Your task to perform on an android device: open the mobile data screen to see how much data has been used Image 0: 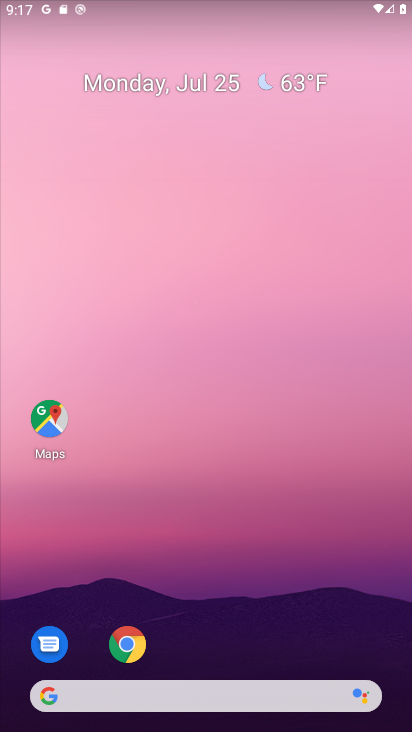
Step 0: click (12, 73)
Your task to perform on an android device: open the mobile data screen to see how much data has been used Image 1: 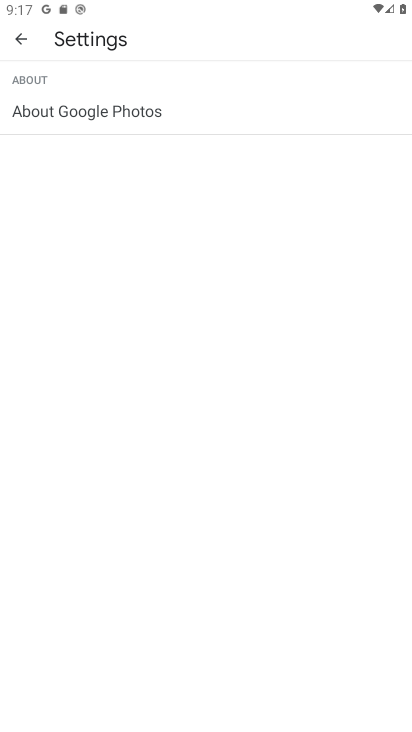
Step 1: click (23, 43)
Your task to perform on an android device: open the mobile data screen to see how much data has been used Image 2: 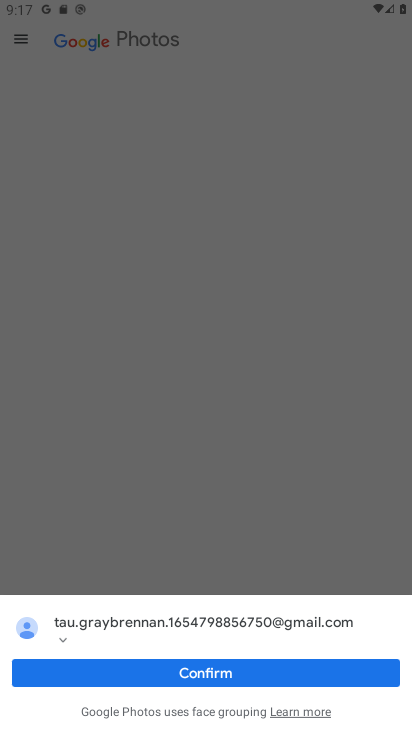
Step 2: press back button
Your task to perform on an android device: open the mobile data screen to see how much data has been used Image 3: 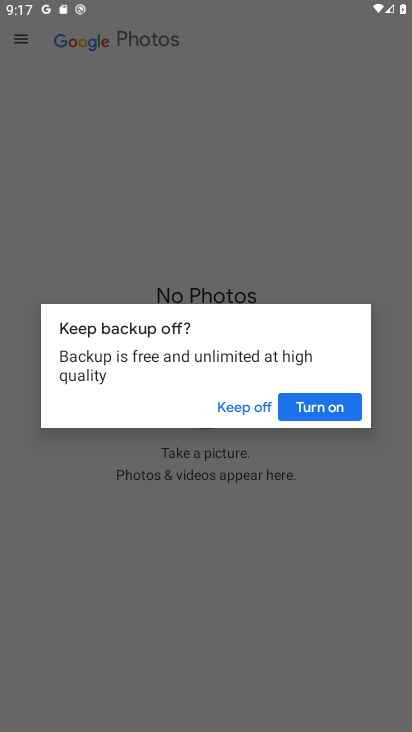
Step 3: press home button
Your task to perform on an android device: open the mobile data screen to see how much data has been used Image 4: 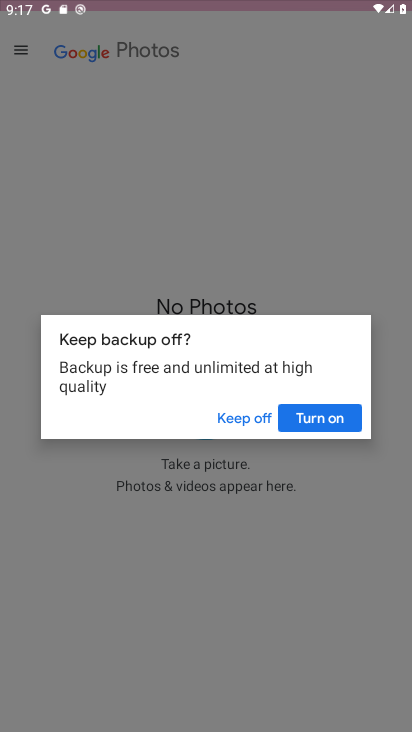
Step 4: press home button
Your task to perform on an android device: open the mobile data screen to see how much data has been used Image 5: 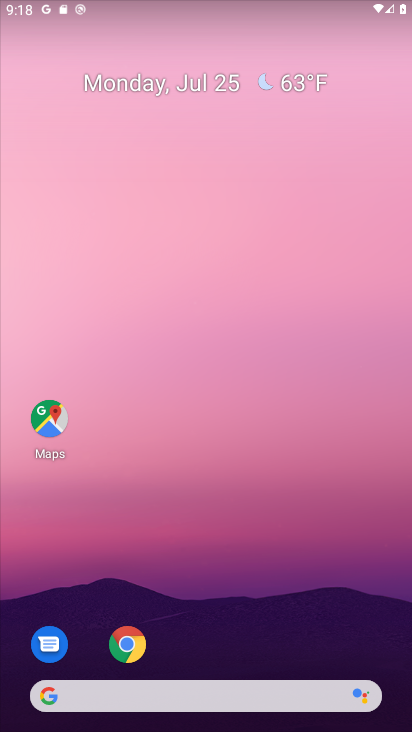
Step 5: click (236, 448)
Your task to perform on an android device: open the mobile data screen to see how much data has been used Image 6: 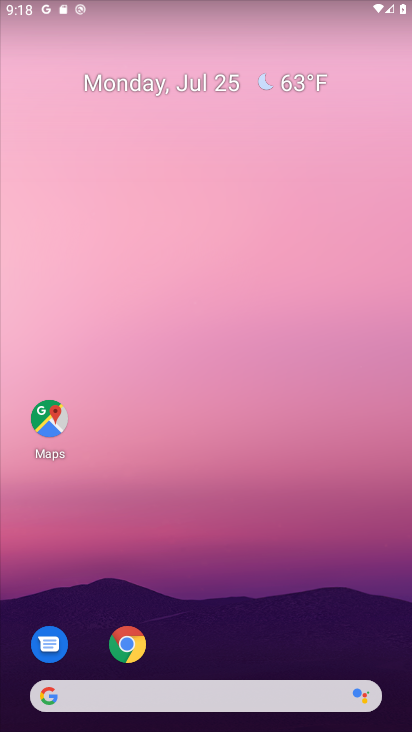
Step 6: drag from (238, 580) to (203, 88)
Your task to perform on an android device: open the mobile data screen to see how much data has been used Image 7: 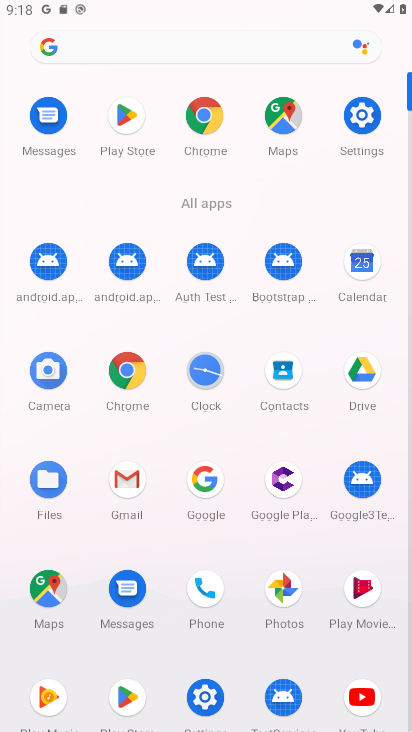
Step 7: click (360, 122)
Your task to perform on an android device: open the mobile data screen to see how much data has been used Image 8: 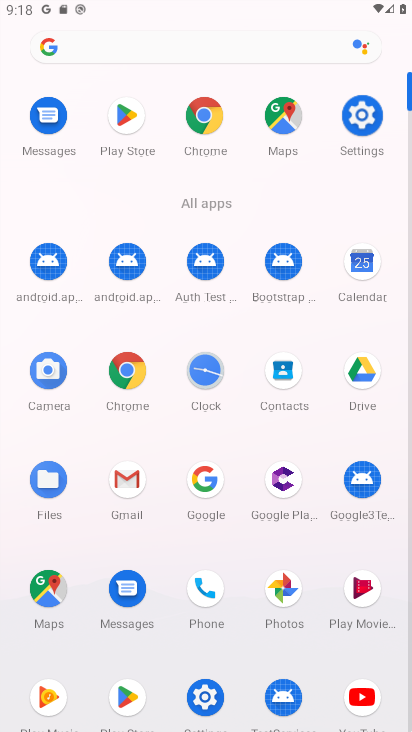
Step 8: click (365, 124)
Your task to perform on an android device: open the mobile data screen to see how much data has been used Image 9: 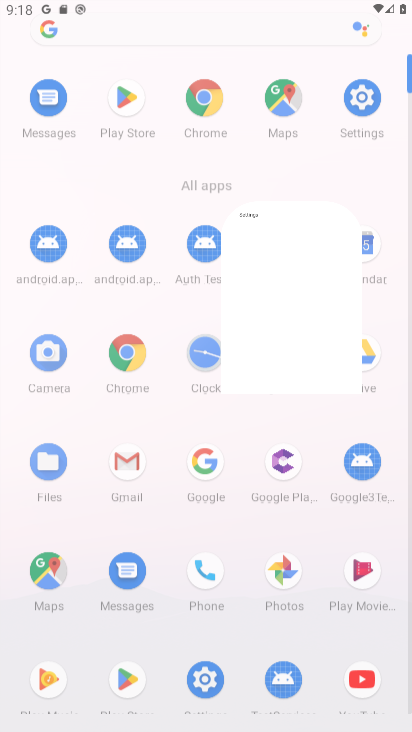
Step 9: click (371, 127)
Your task to perform on an android device: open the mobile data screen to see how much data has been used Image 10: 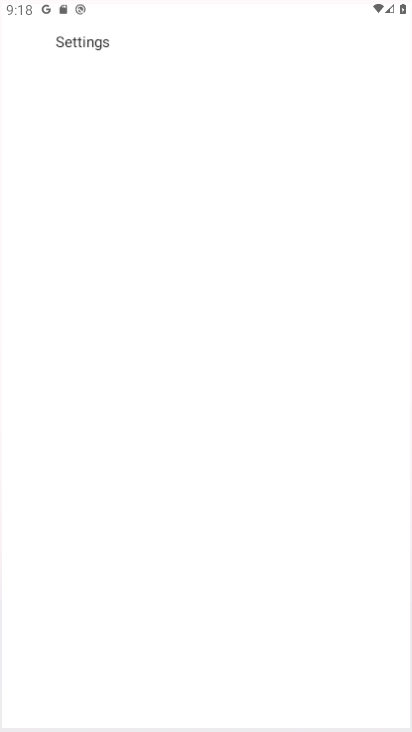
Step 10: click (372, 125)
Your task to perform on an android device: open the mobile data screen to see how much data has been used Image 11: 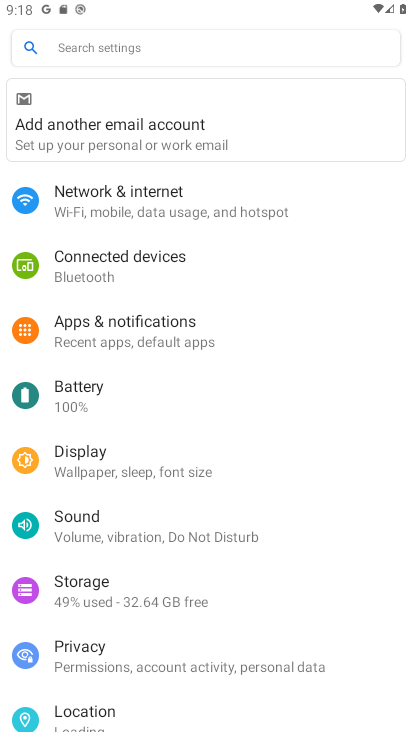
Step 11: click (106, 189)
Your task to perform on an android device: open the mobile data screen to see how much data has been used Image 12: 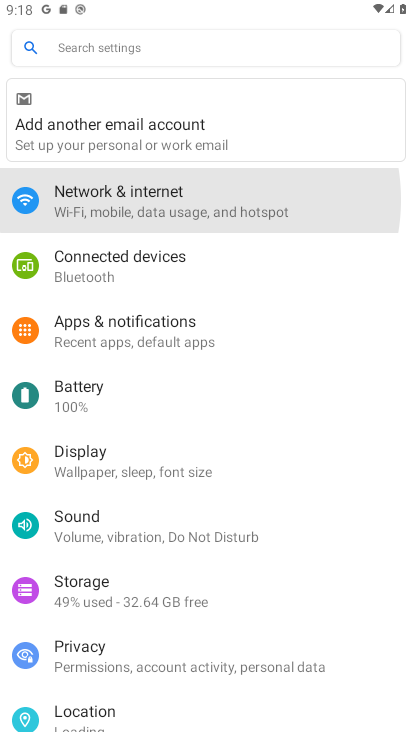
Step 12: click (107, 192)
Your task to perform on an android device: open the mobile data screen to see how much data has been used Image 13: 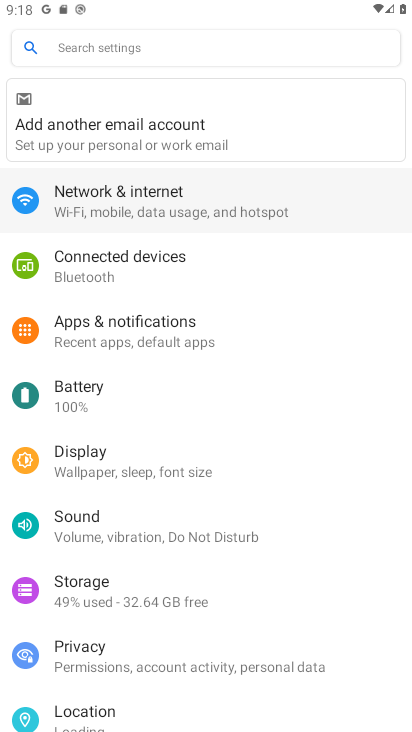
Step 13: click (107, 192)
Your task to perform on an android device: open the mobile data screen to see how much data has been used Image 14: 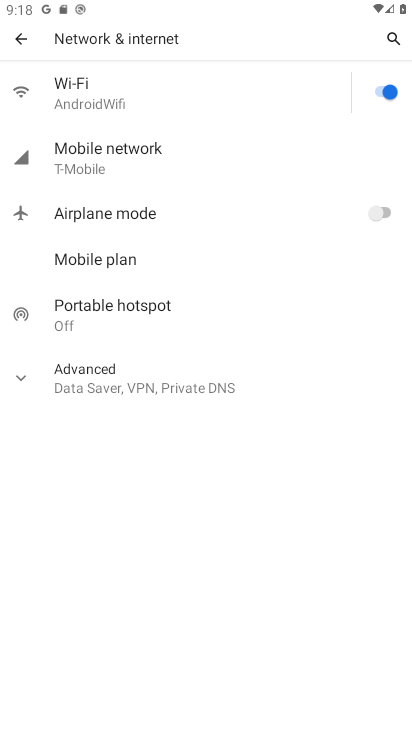
Step 14: click (97, 153)
Your task to perform on an android device: open the mobile data screen to see how much data has been used Image 15: 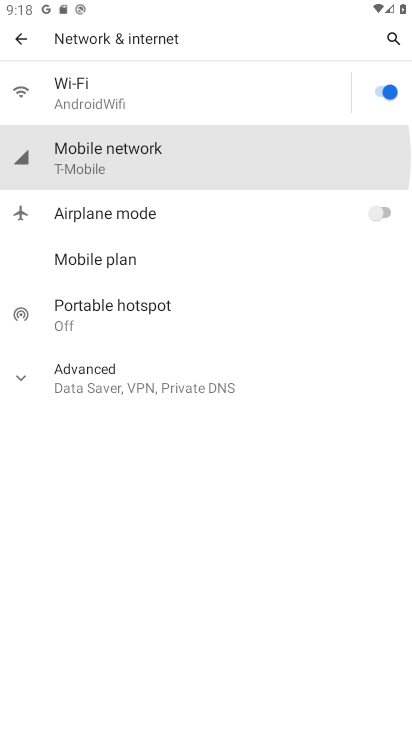
Step 15: click (95, 151)
Your task to perform on an android device: open the mobile data screen to see how much data has been used Image 16: 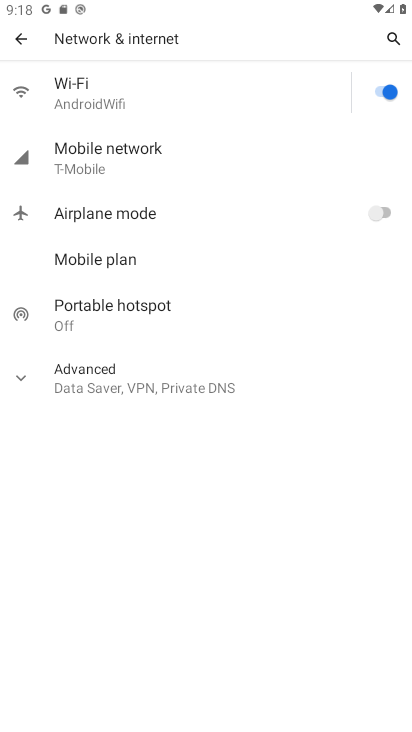
Step 16: click (96, 149)
Your task to perform on an android device: open the mobile data screen to see how much data has been used Image 17: 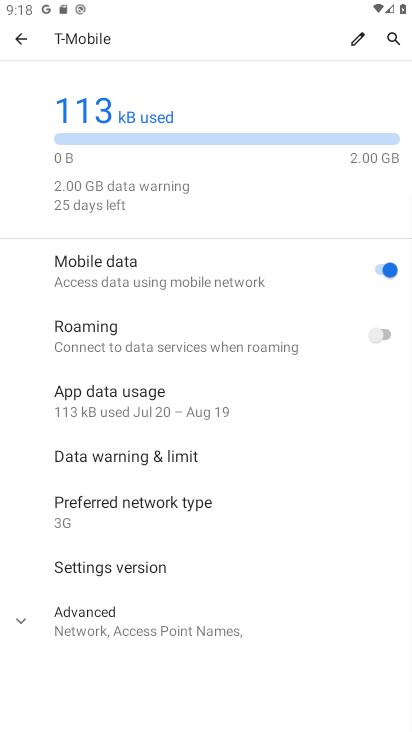
Step 17: task complete